Your task to perform on an android device: Go to Maps Image 0: 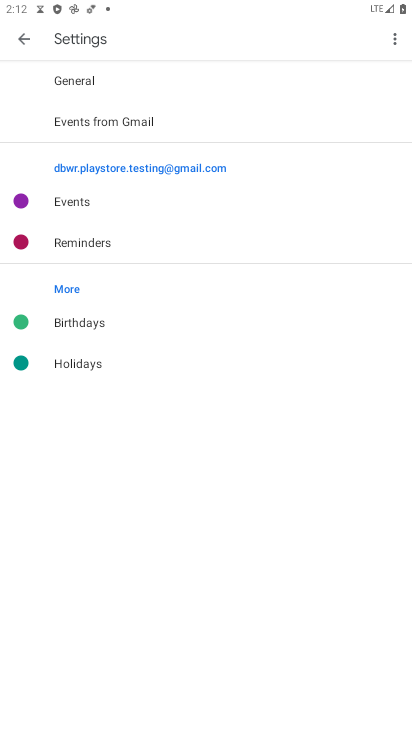
Step 0: drag from (229, 684) to (263, 193)
Your task to perform on an android device: Go to Maps Image 1: 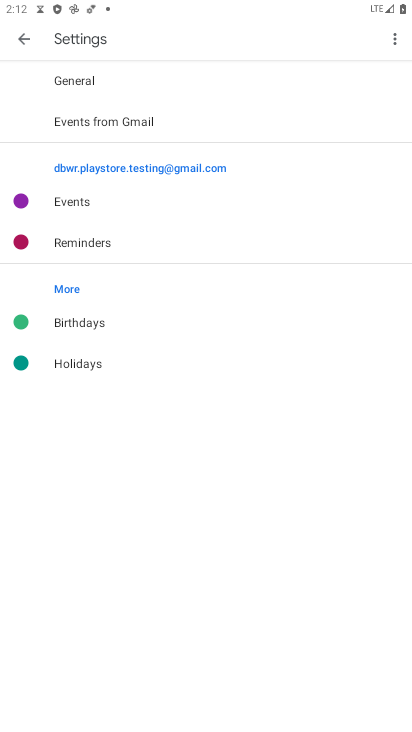
Step 1: press home button
Your task to perform on an android device: Go to Maps Image 2: 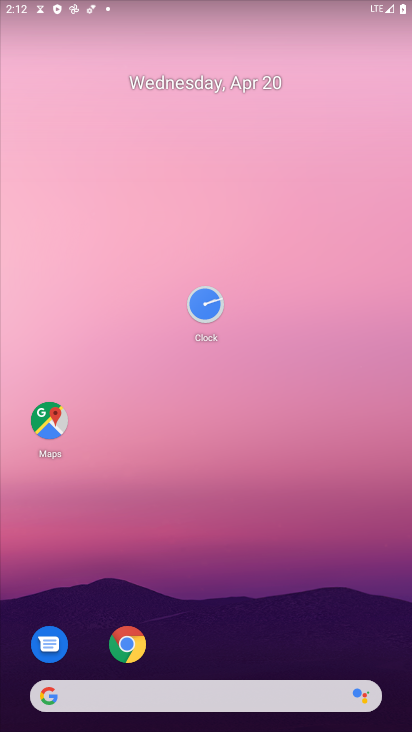
Step 2: drag from (246, 682) to (259, 76)
Your task to perform on an android device: Go to Maps Image 3: 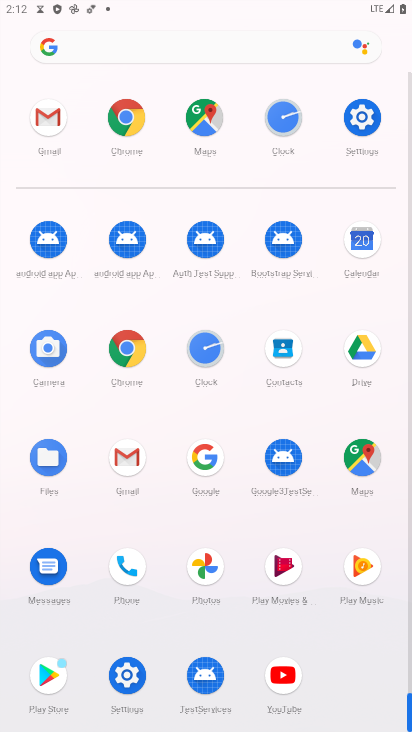
Step 3: click (368, 458)
Your task to perform on an android device: Go to Maps Image 4: 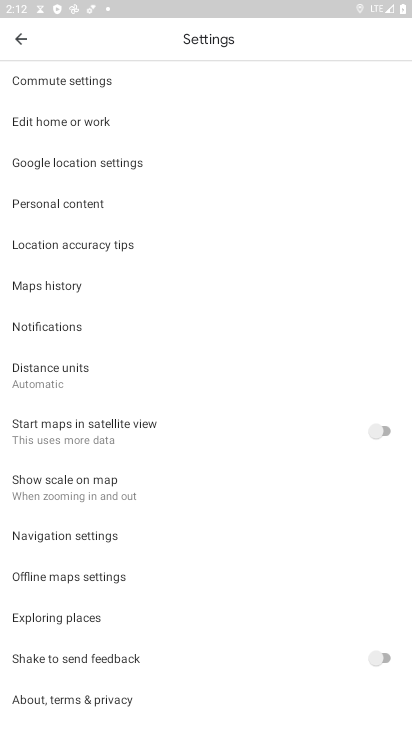
Step 4: press home button
Your task to perform on an android device: Go to Maps Image 5: 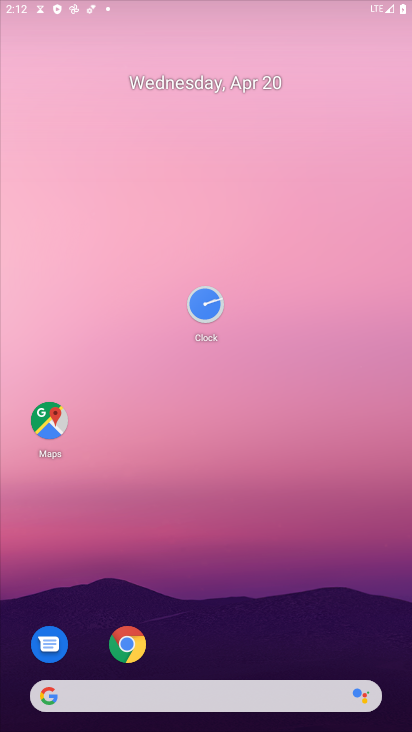
Step 5: drag from (287, 679) to (295, 120)
Your task to perform on an android device: Go to Maps Image 6: 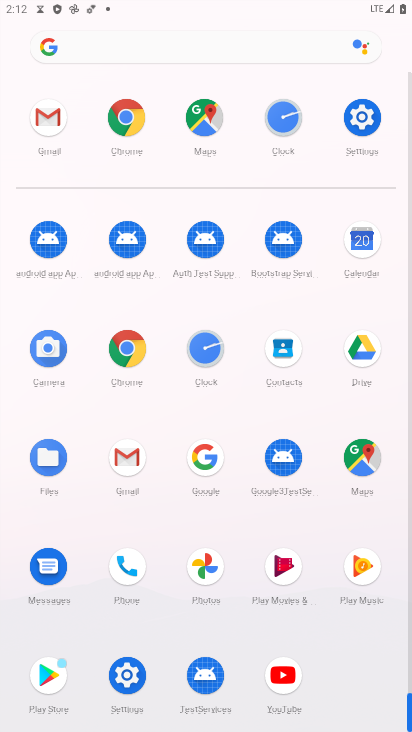
Step 6: click (365, 468)
Your task to perform on an android device: Go to Maps Image 7: 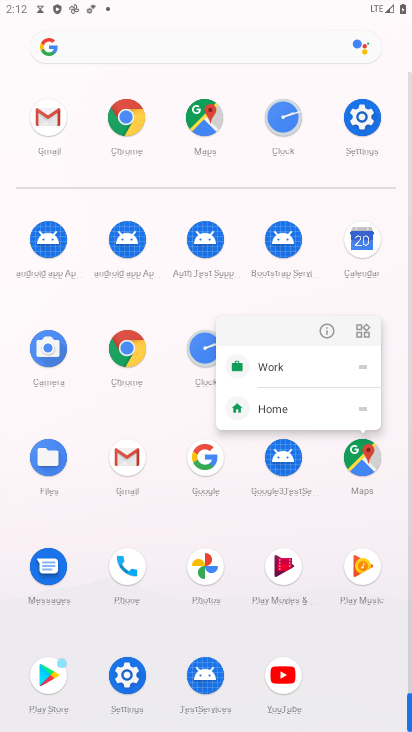
Step 7: click (365, 468)
Your task to perform on an android device: Go to Maps Image 8: 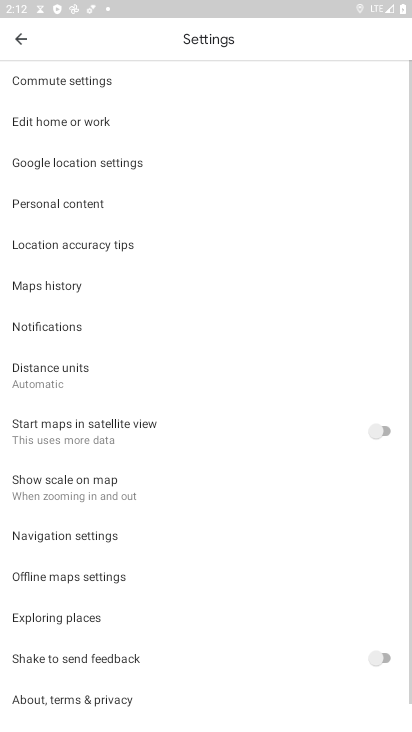
Step 8: task complete